Your task to perform on an android device: make emails show in primary in the gmail app Image 0: 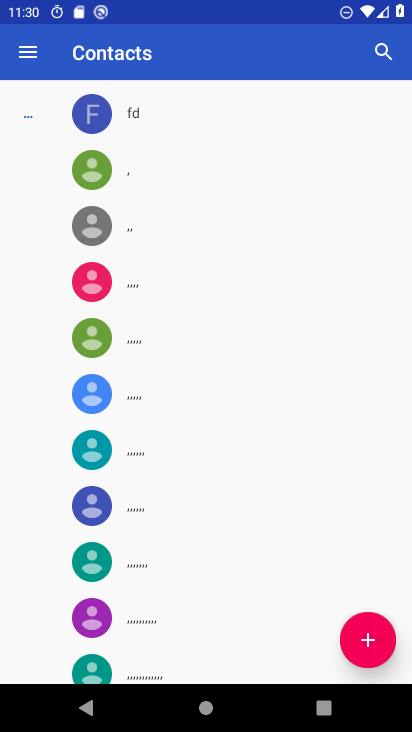
Step 0: press back button
Your task to perform on an android device: make emails show in primary in the gmail app Image 1: 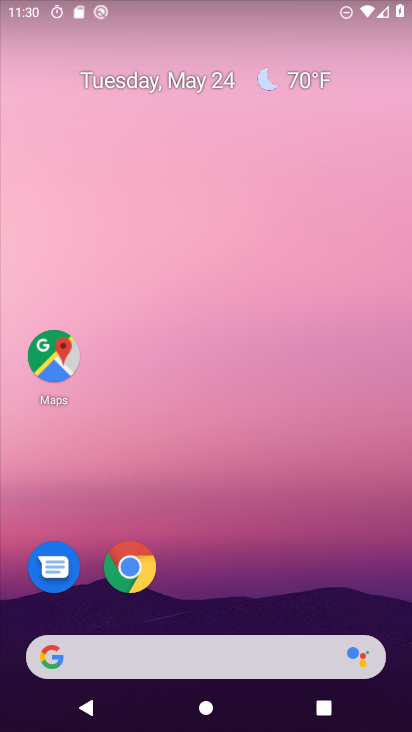
Step 1: drag from (400, 696) to (361, 233)
Your task to perform on an android device: make emails show in primary in the gmail app Image 2: 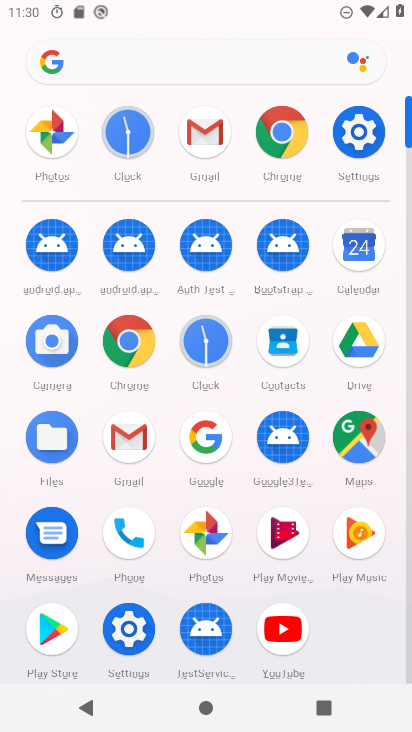
Step 2: click (134, 440)
Your task to perform on an android device: make emails show in primary in the gmail app Image 3: 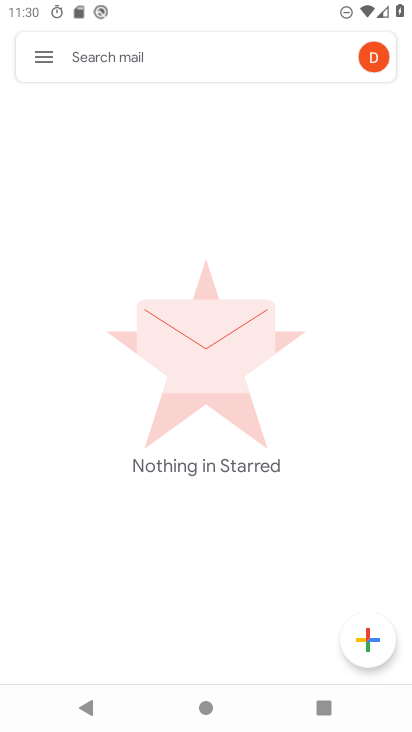
Step 3: click (51, 58)
Your task to perform on an android device: make emails show in primary in the gmail app Image 4: 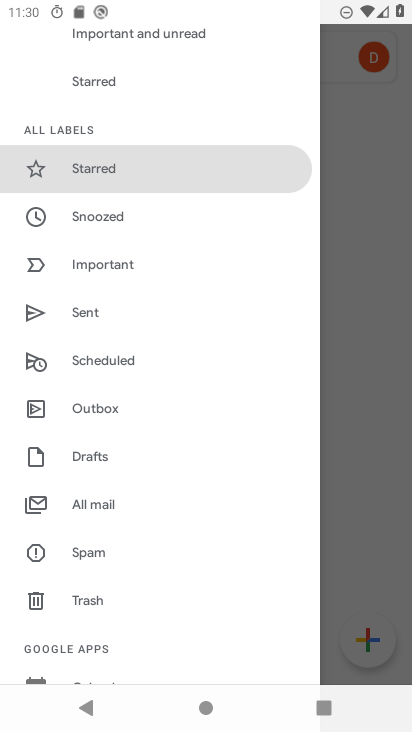
Step 4: drag from (213, 652) to (250, 261)
Your task to perform on an android device: make emails show in primary in the gmail app Image 5: 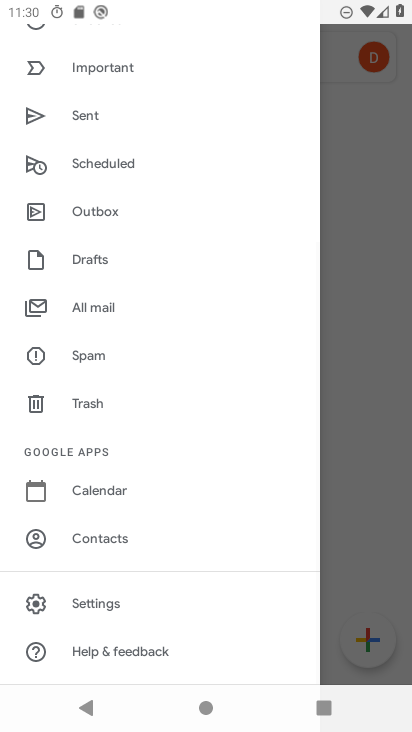
Step 5: click (74, 601)
Your task to perform on an android device: make emails show in primary in the gmail app Image 6: 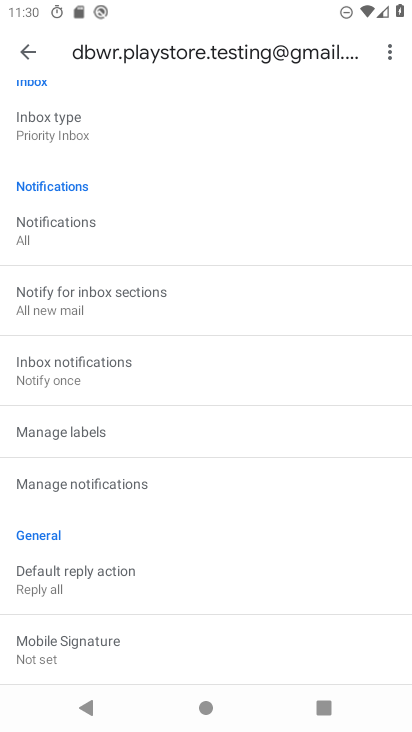
Step 6: click (40, 126)
Your task to perform on an android device: make emails show in primary in the gmail app Image 7: 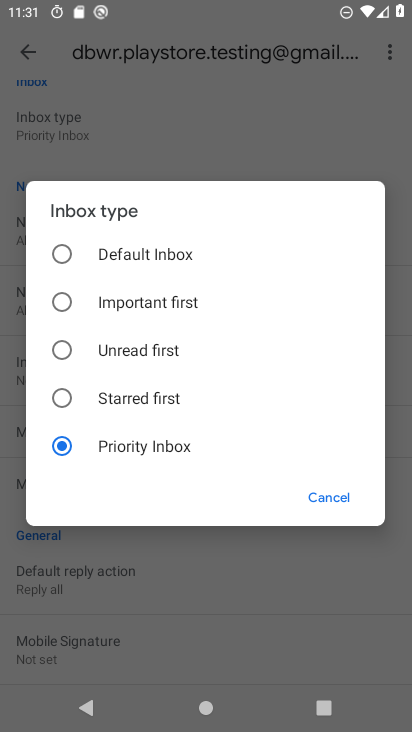
Step 7: click (56, 256)
Your task to perform on an android device: make emails show in primary in the gmail app Image 8: 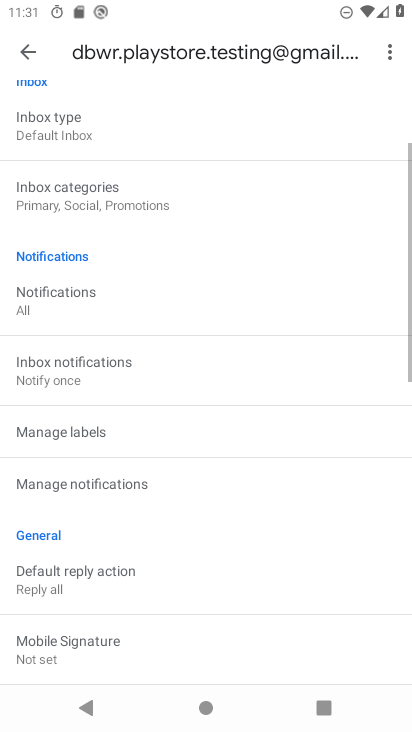
Step 8: click (73, 192)
Your task to perform on an android device: make emails show in primary in the gmail app Image 9: 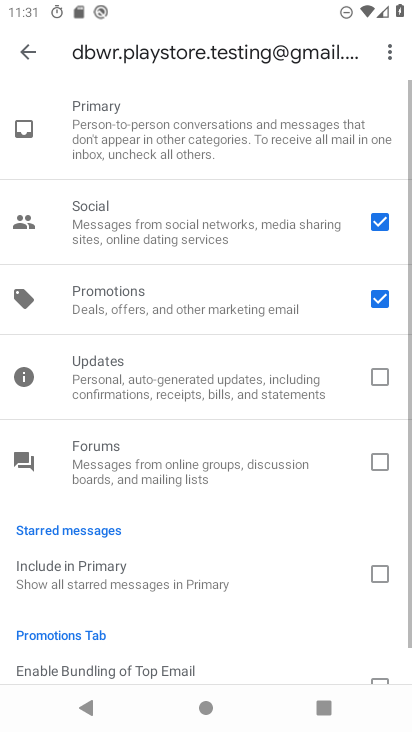
Step 9: click (376, 293)
Your task to perform on an android device: make emails show in primary in the gmail app Image 10: 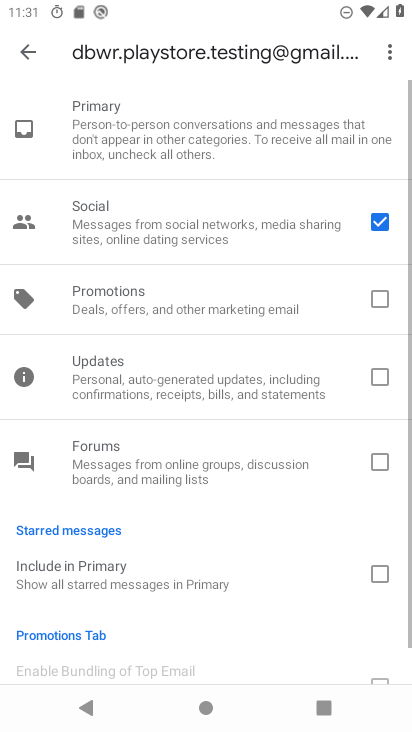
Step 10: click (380, 217)
Your task to perform on an android device: make emails show in primary in the gmail app Image 11: 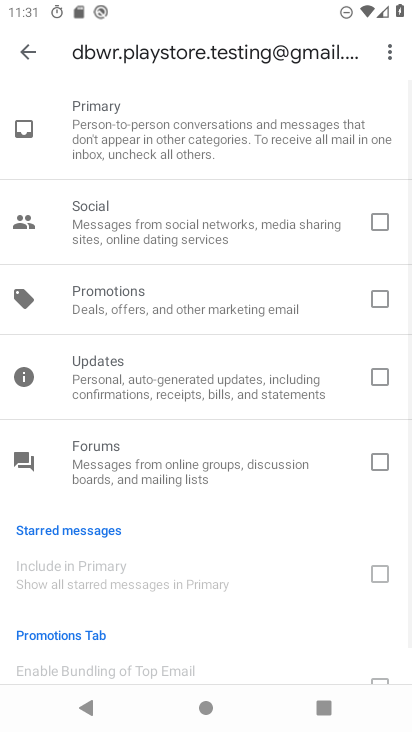
Step 11: click (24, 53)
Your task to perform on an android device: make emails show in primary in the gmail app Image 12: 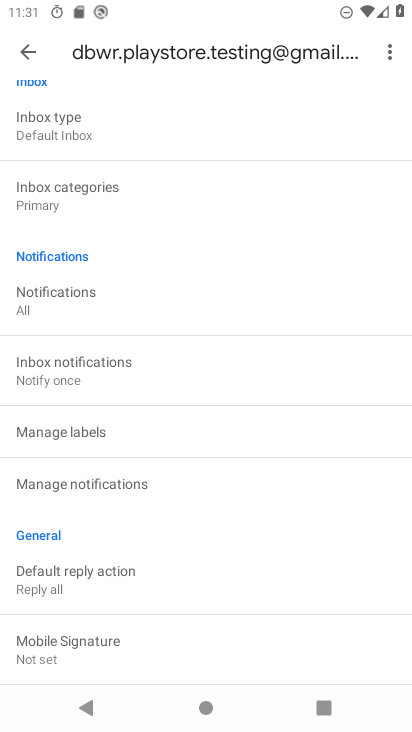
Step 12: task complete